Your task to perform on an android device: Open Chrome and go to settings Image 0: 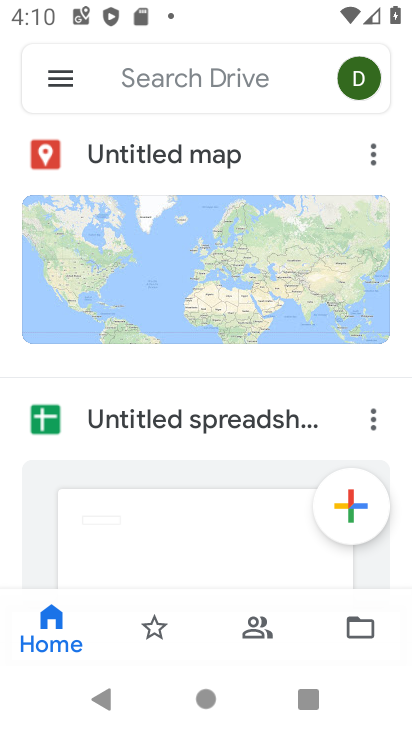
Step 0: press home button
Your task to perform on an android device: Open Chrome and go to settings Image 1: 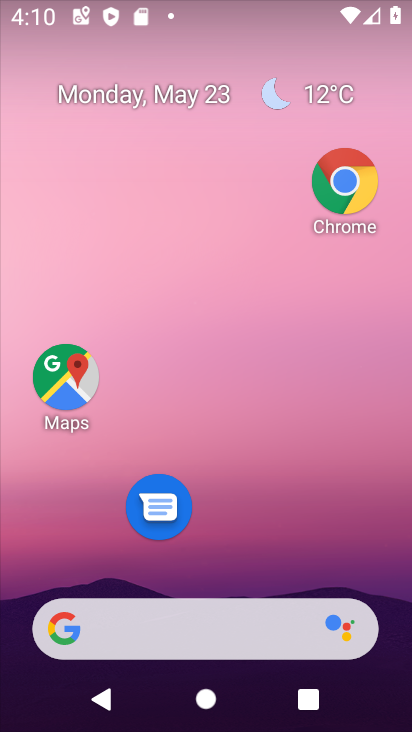
Step 1: click (346, 190)
Your task to perform on an android device: Open Chrome and go to settings Image 2: 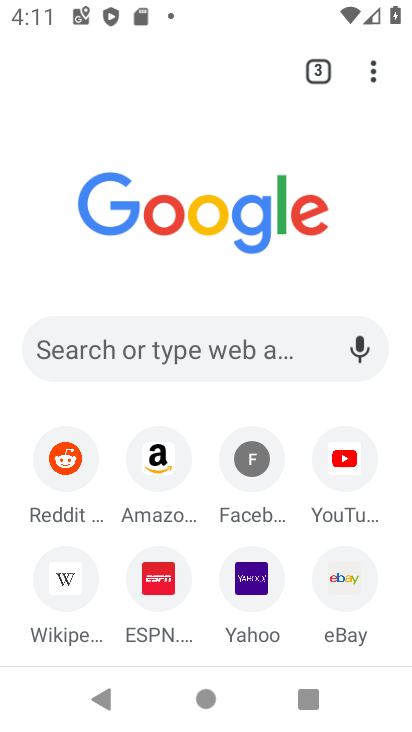
Step 2: click (380, 72)
Your task to perform on an android device: Open Chrome and go to settings Image 3: 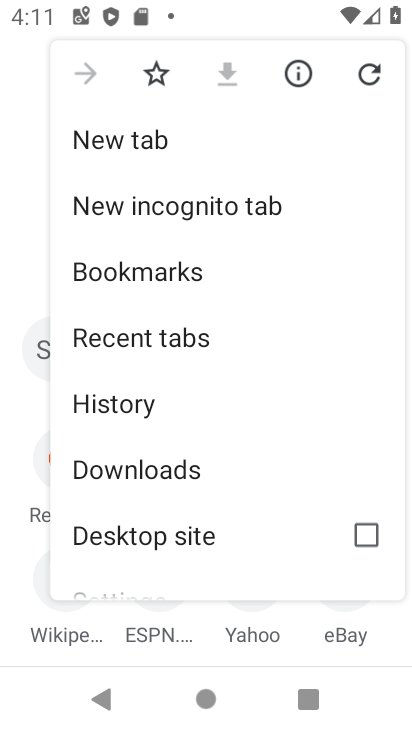
Step 3: drag from (204, 321) to (147, 107)
Your task to perform on an android device: Open Chrome and go to settings Image 4: 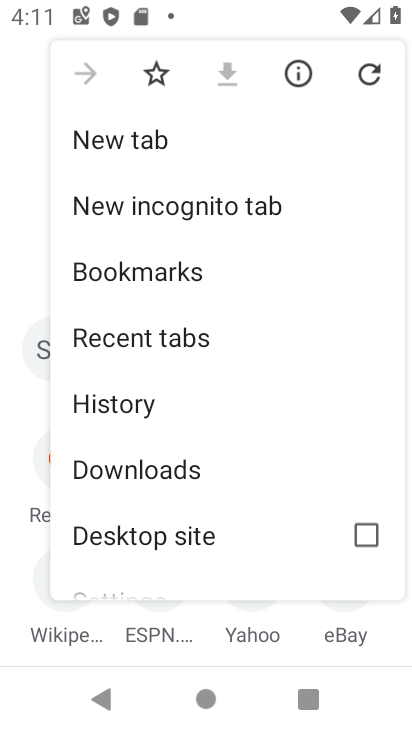
Step 4: click (142, 592)
Your task to perform on an android device: Open Chrome and go to settings Image 5: 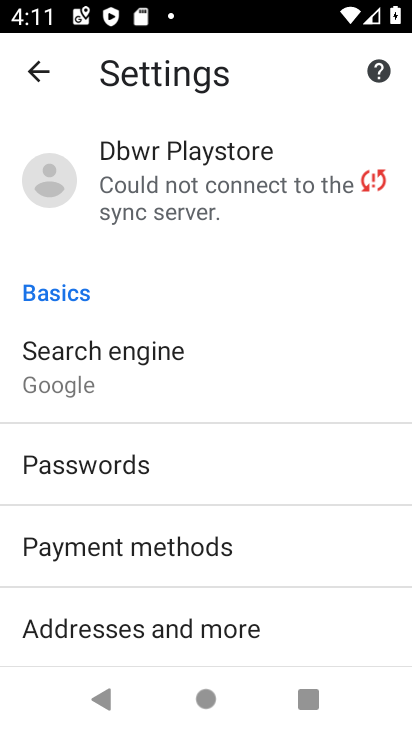
Step 5: task complete